Your task to perform on an android device: see creations saved in the google photos Image 0: 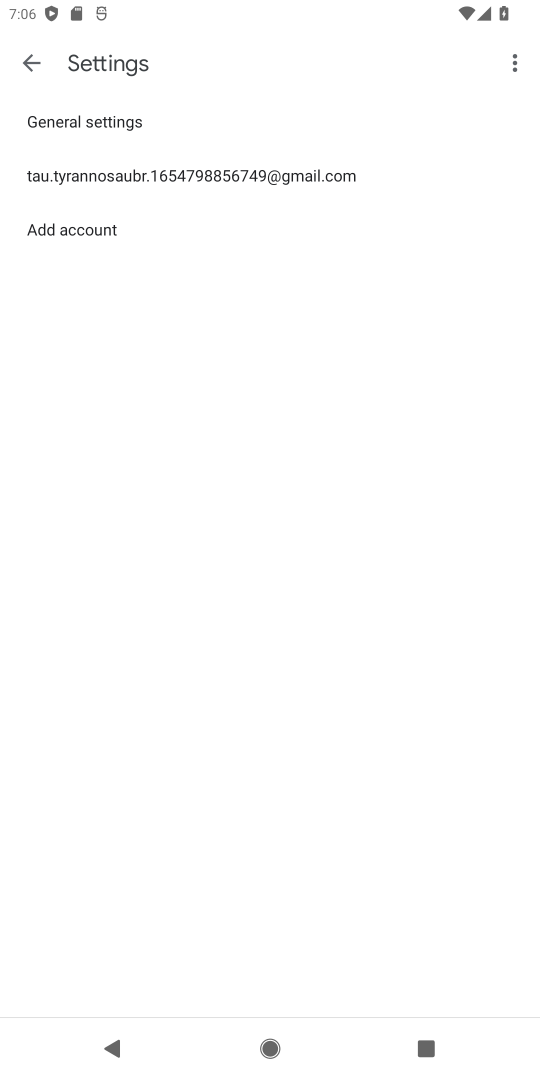
Step 0: press home button
Your task to perform on an android device: see creations saved in the google photos Image 1: 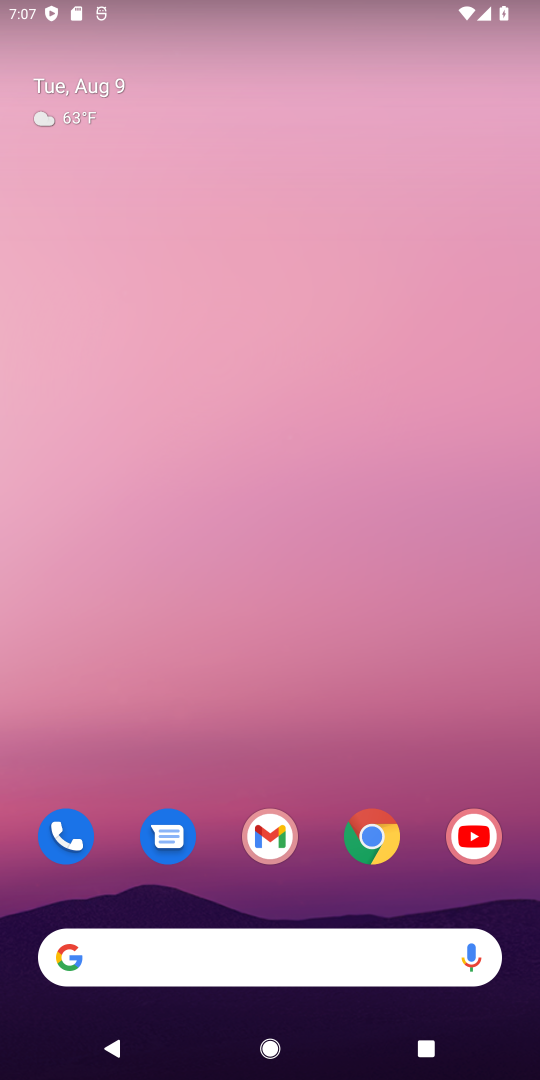
Step 1: drag from (315, 878) to (312, 570)
Your task to perform on an android device: see creations saved in the google photos Image 2: 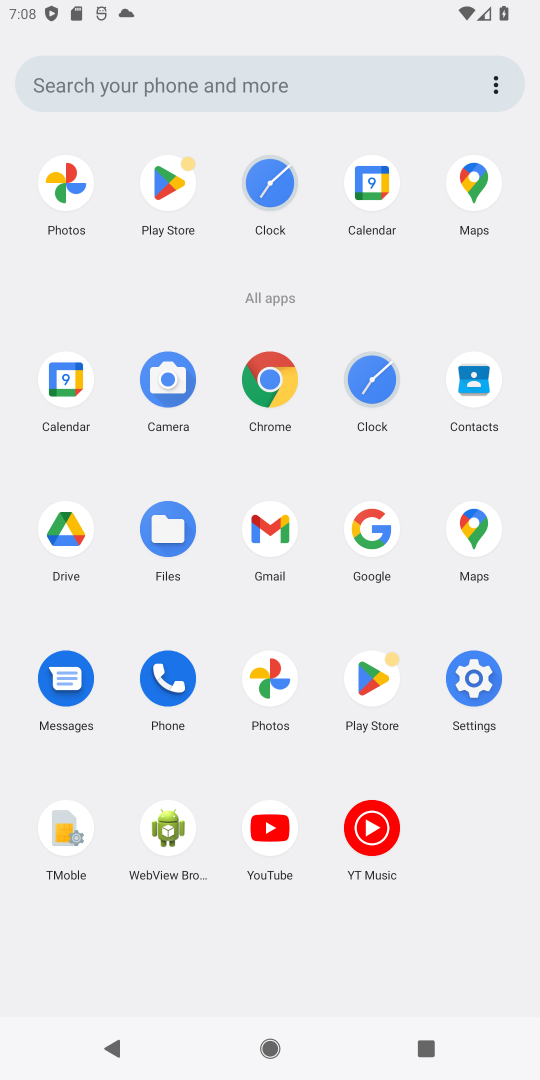
Step 2: click (271, 674)
Your task to perform on an android device: see creations saved in the google photos Image 3: 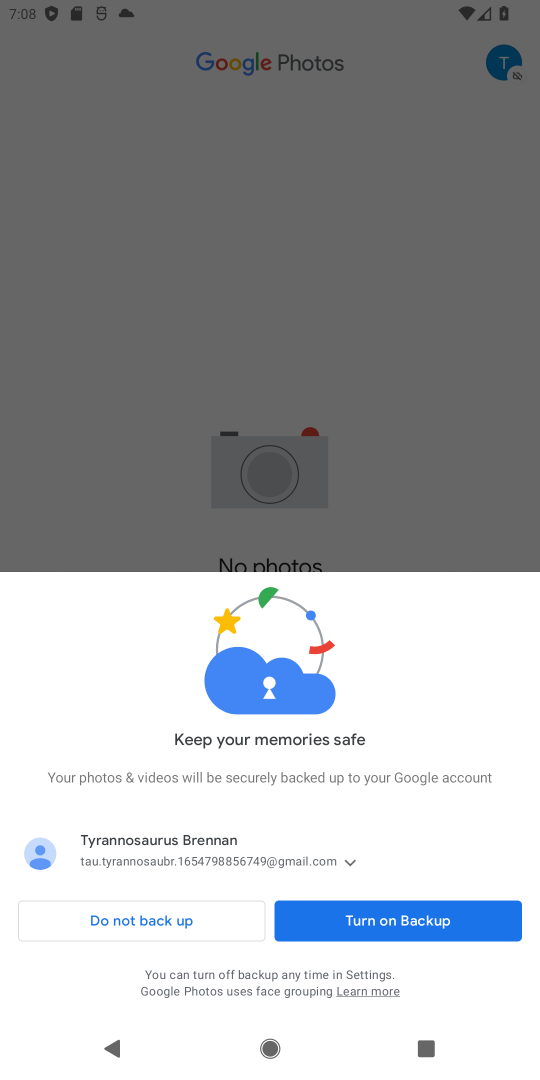
Step 3: click (312, 925)
Your task to perform on an android device: see creations saved in the google photos Image 4: 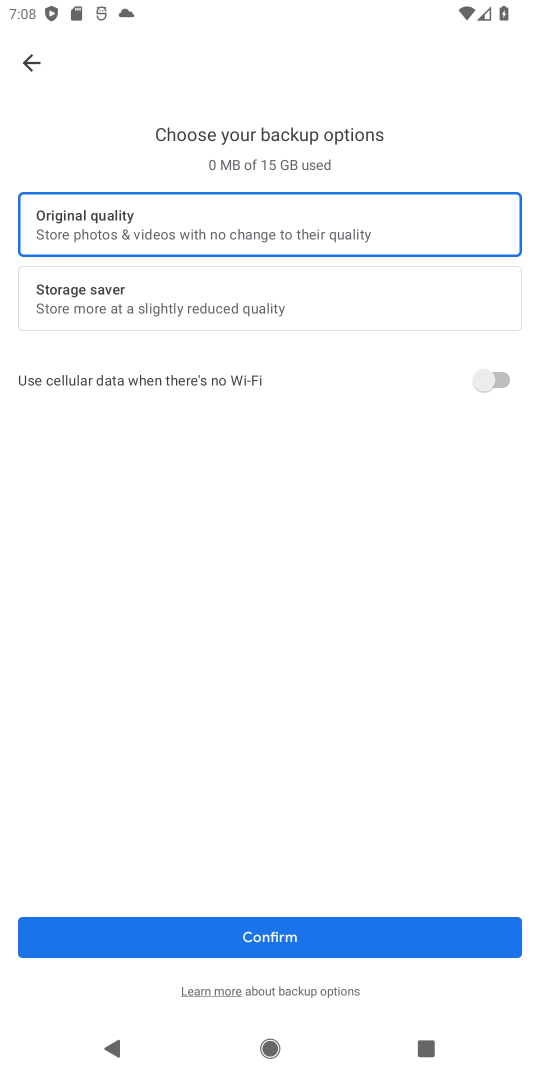
Step 4: click (312, 925)
Your task to perform on an android device: see creations saved in the google photos Image 5: 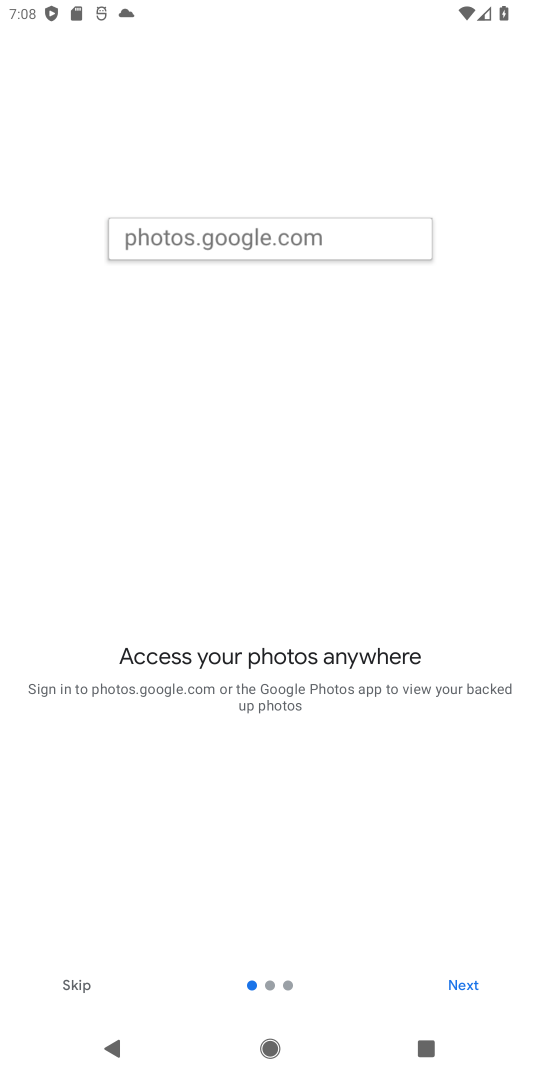
Step 5: click (459, 972)
Your task to perform on an android device: see creations saved in the google photos Image 6: 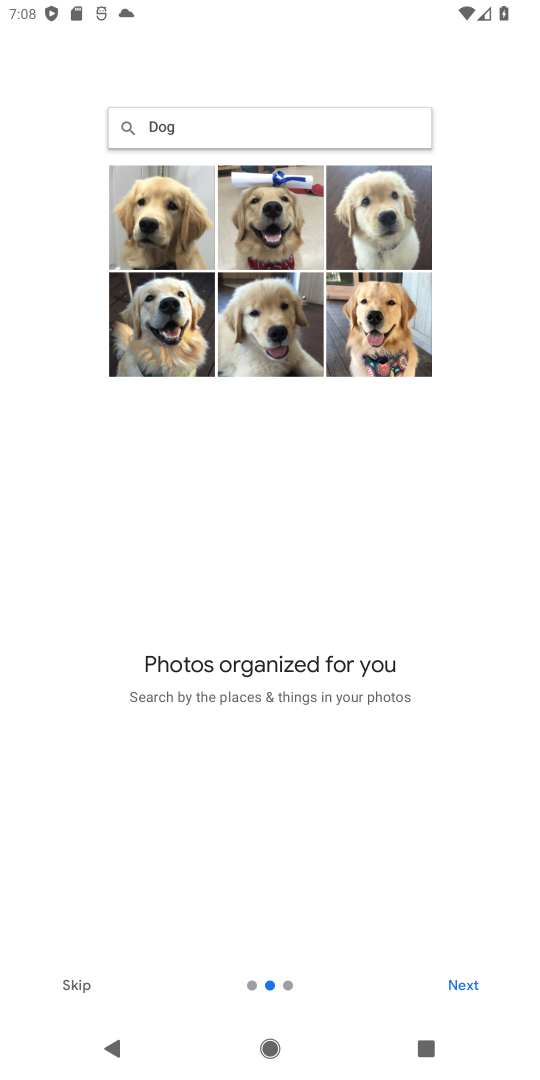
Step 6: click (461, 992)
Your task to perform on an android device: see creations saved in the google photos Image 7: 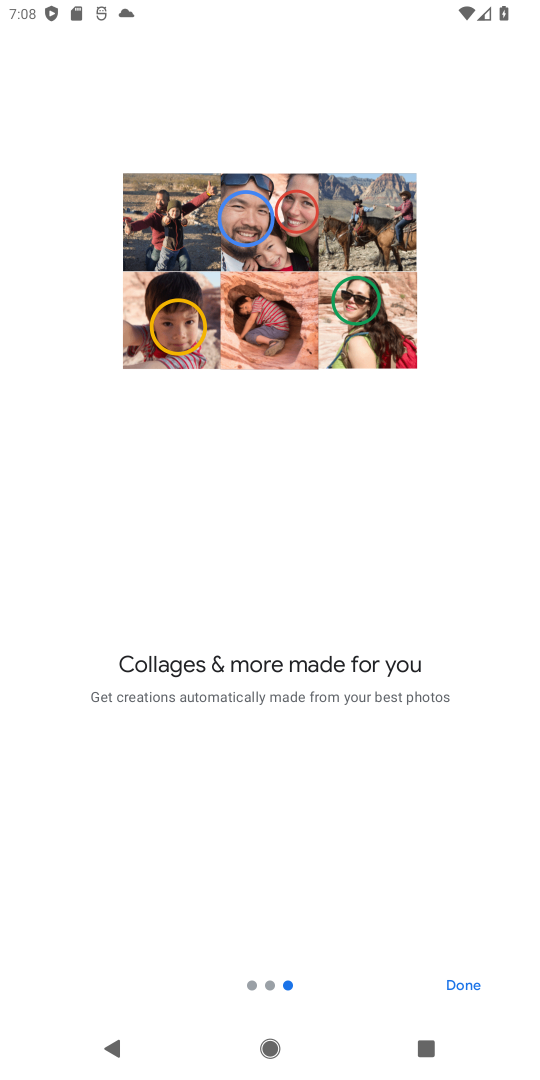
Step 7: click (461, 992)
Your task to perform on an android device: see creations saved in the google photos Image 8: 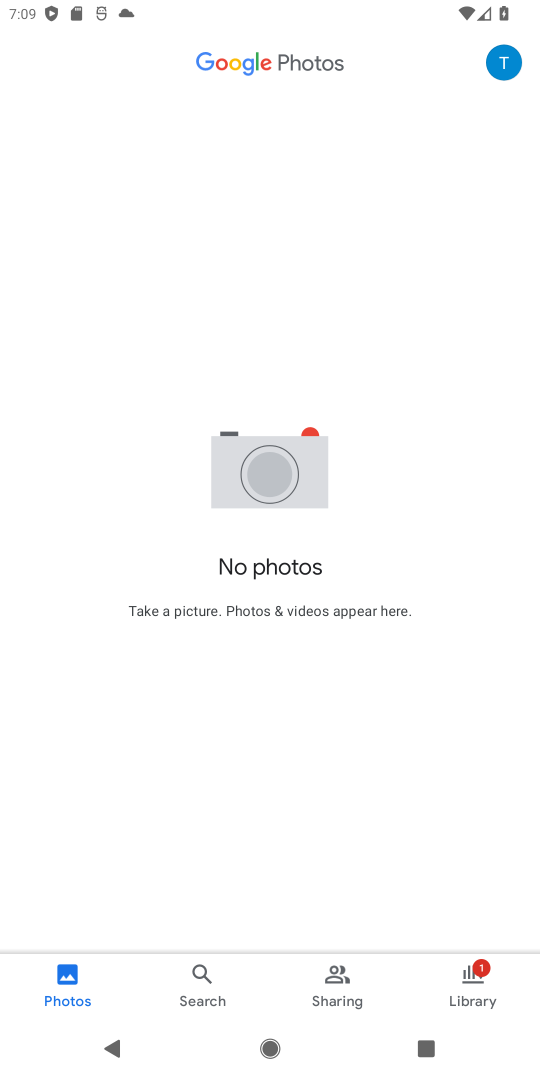
Step 8: task complete